Your task to perform on an android device: turn off data saver in the chrome app Image 0: 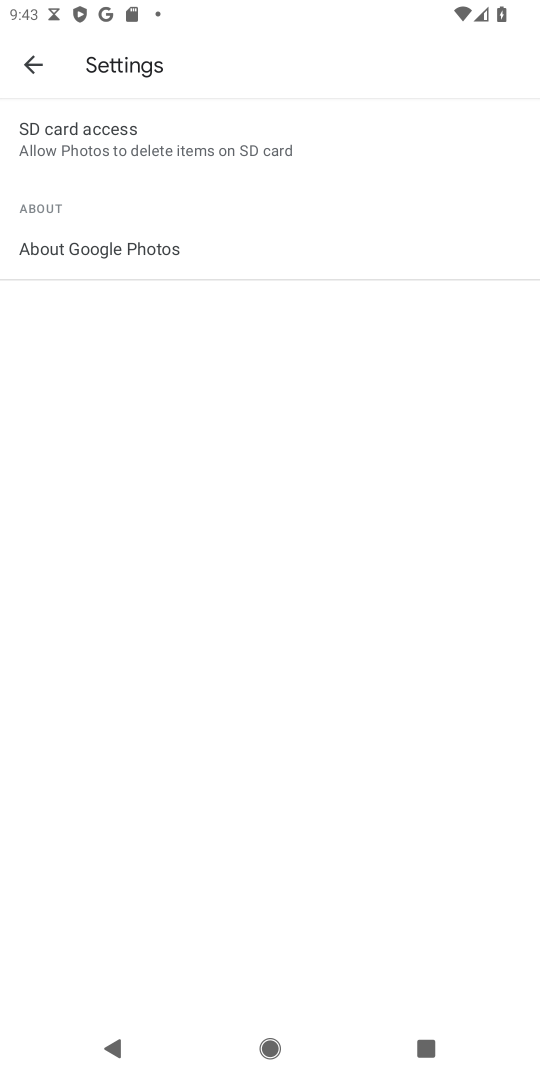
Step 0: press home button
Your task to perform on an android device: turn off data saver in the chrome app Image 1: 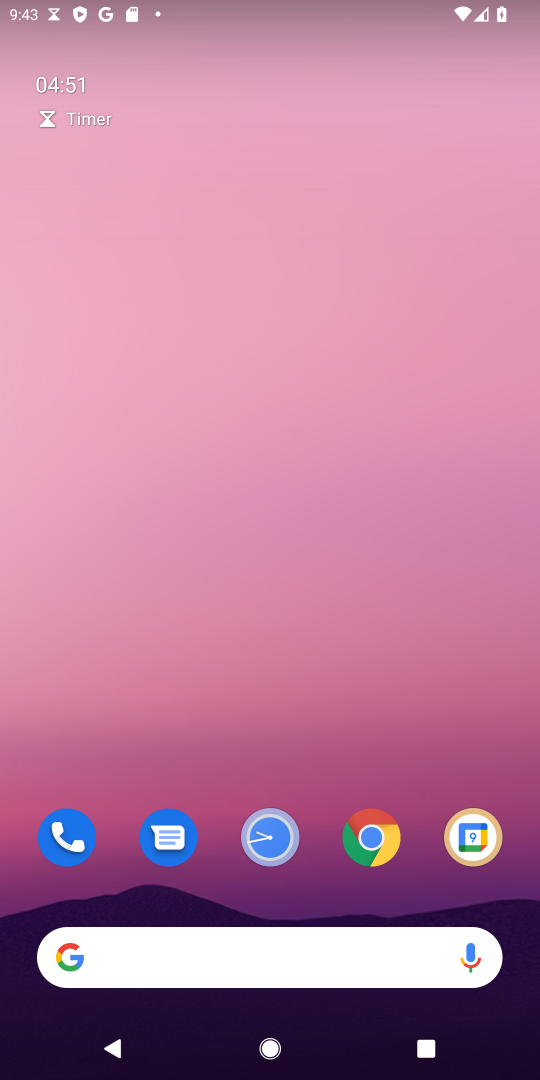
Step 1: click (375, 833)
Your task to perform on an android device: turn off data saver in the chrome app Image 2: 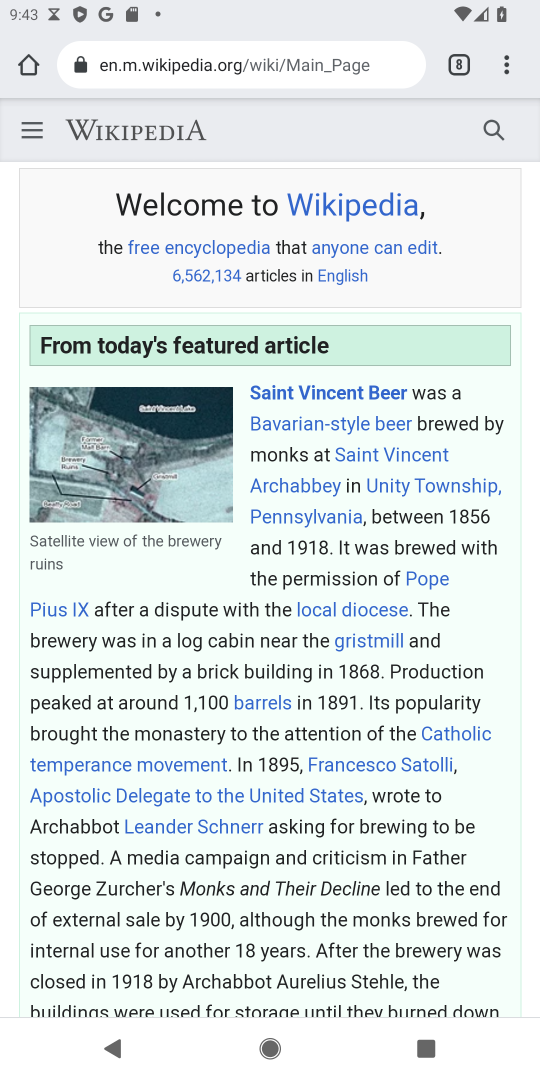
Step 2: drag from (508, 64) to (351, 858)
Your task to perform on an android device: turn off data saver in the chrome app Image 3: 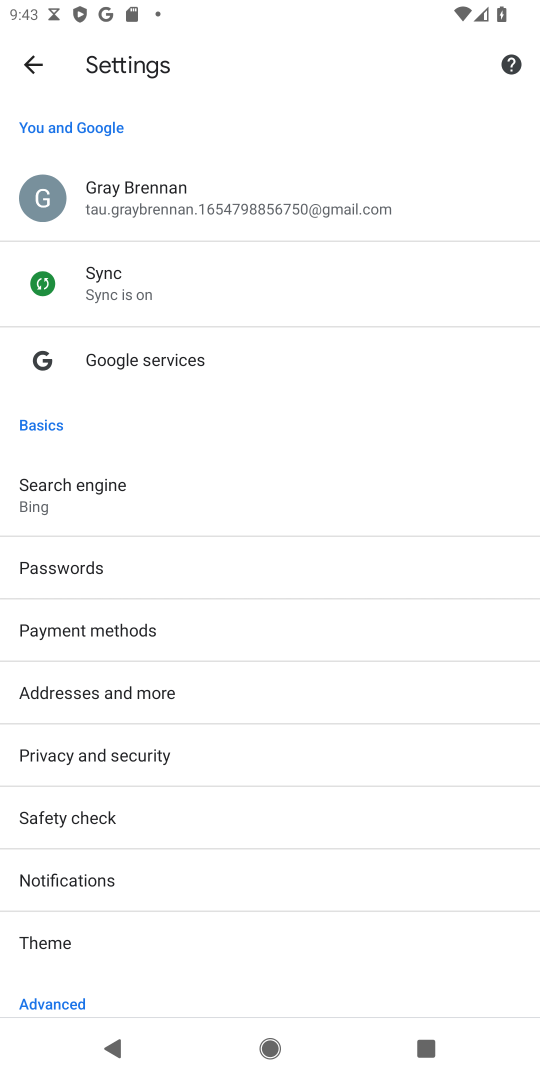
Step 3: drag from (133, 933) to (156, 437)
Your task to perform on an android device: turn off data saver in the chrome app Image 4: 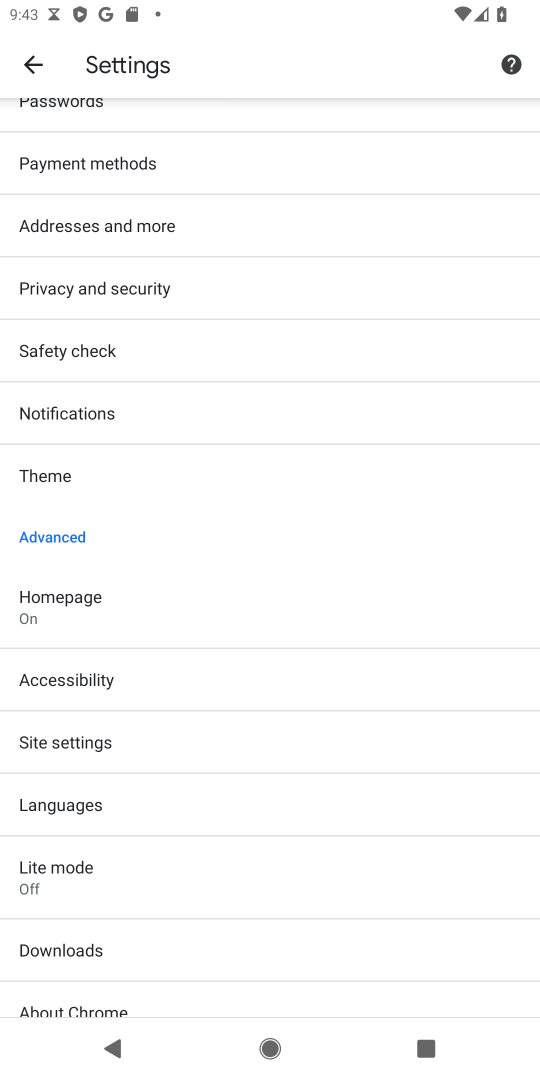
Step 4: click (75, 862)
Your task to perform on an android device: turn off data saver in the chrome app Image 5: 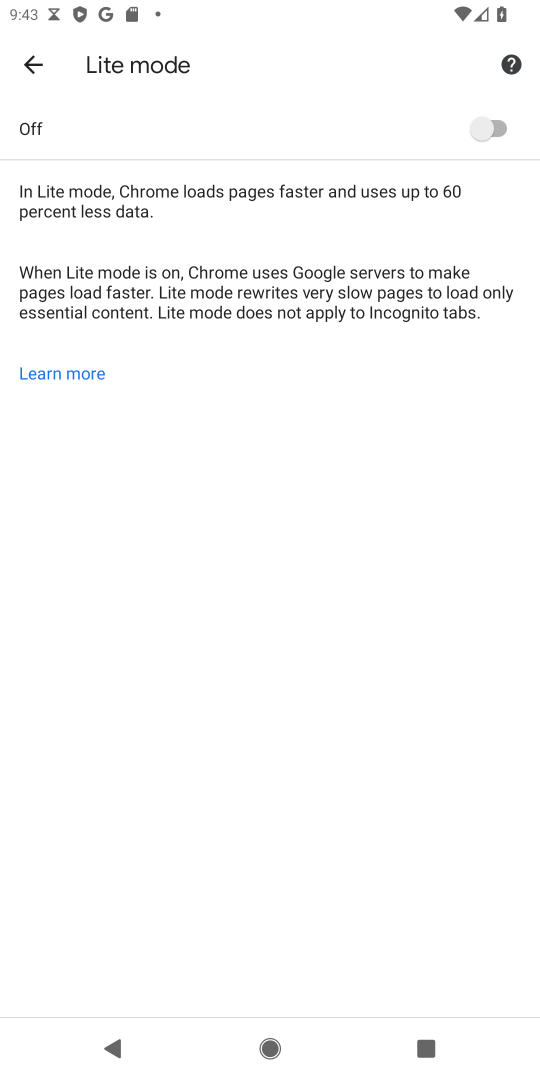
Step 5: task complete